Your task to perform on an android device: Open Maps and search for coffee Image 0: 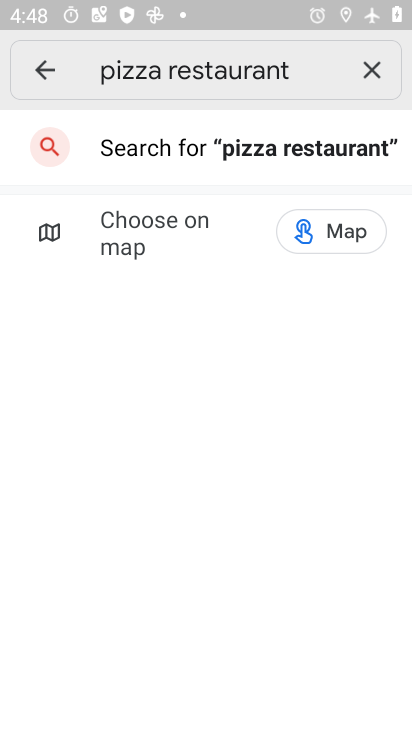
Step 0: press home button
Your task to perform on an android device: Open Maps and search for coffee Image 1: 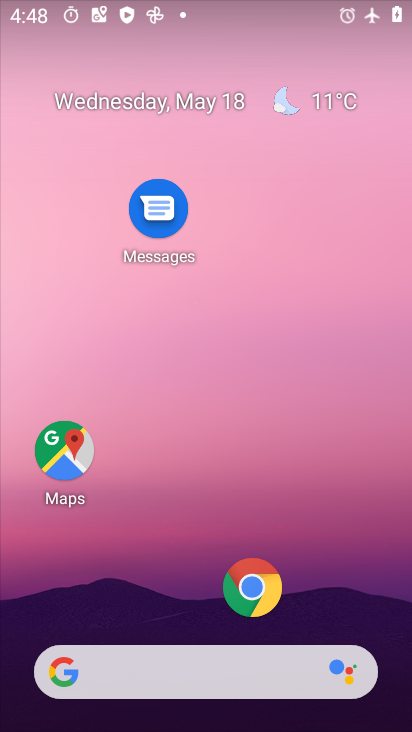
Step 1: click (69, 448)
Your task to perform on an android device: Open Maps and search for coffee Image 2: 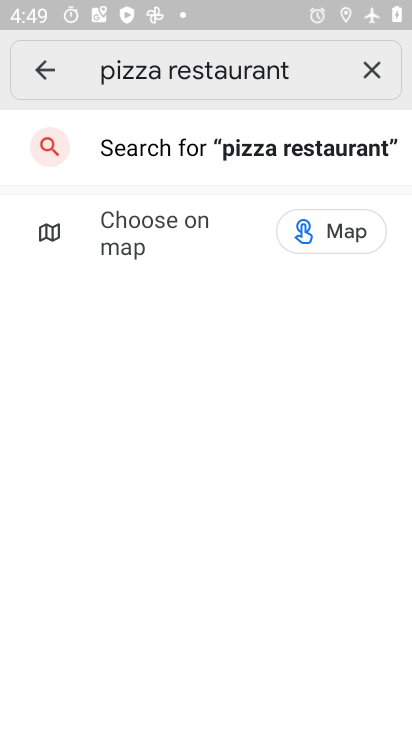
Step 2: click (365, 77)
Your task to perform on an android device: Open Maps and search for coffee Image 3: 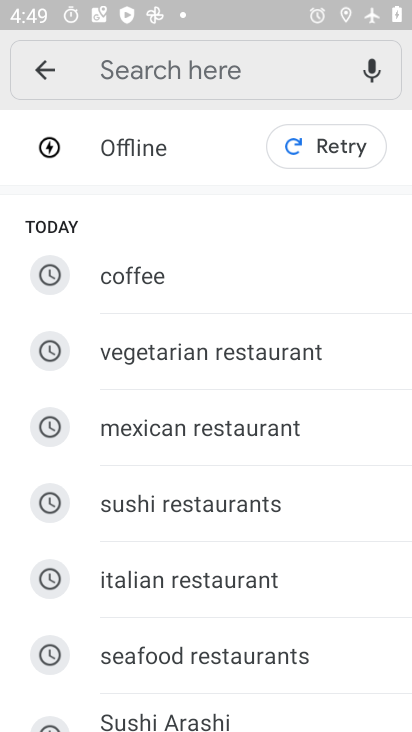
Step 3: click (158, 278)
Your task to perform on an android device: Open Maps and search for coffee Image 4: 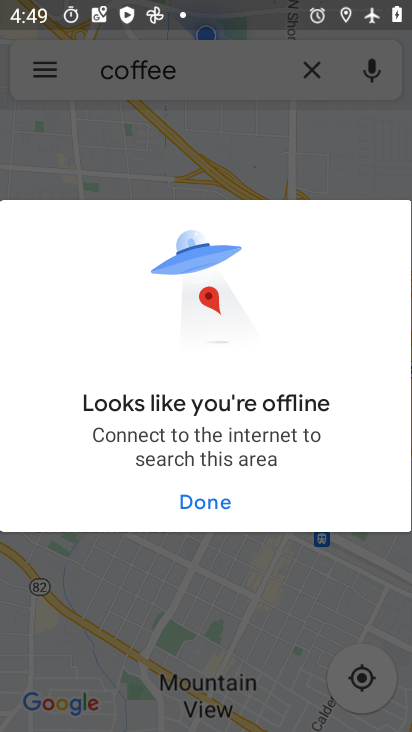
Step 4: task complete